Your task to perform on an android device: check data usage Image 0: 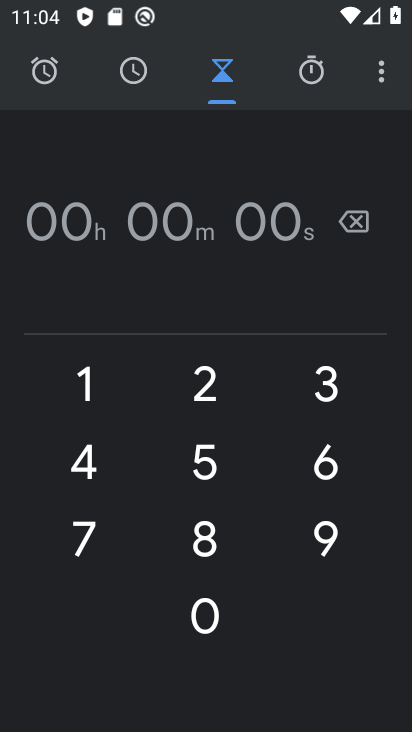
Step 0: press home button
Your task to perform on an android device: check data usage Image 1: 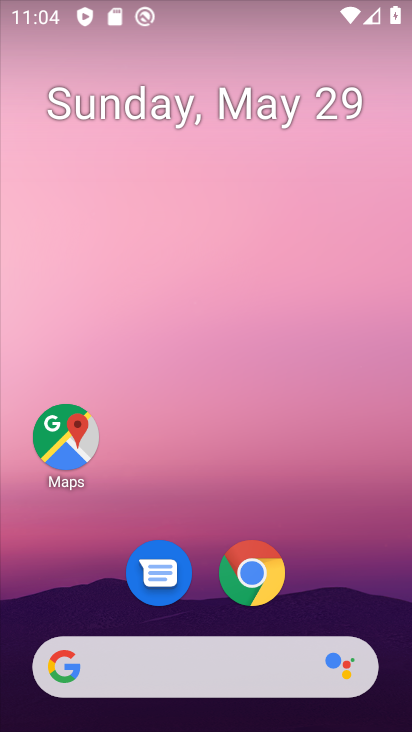
Step 1: drag from (305, 422) to (274, 239)
Your task to perform on an android device: check data usage Image 2: 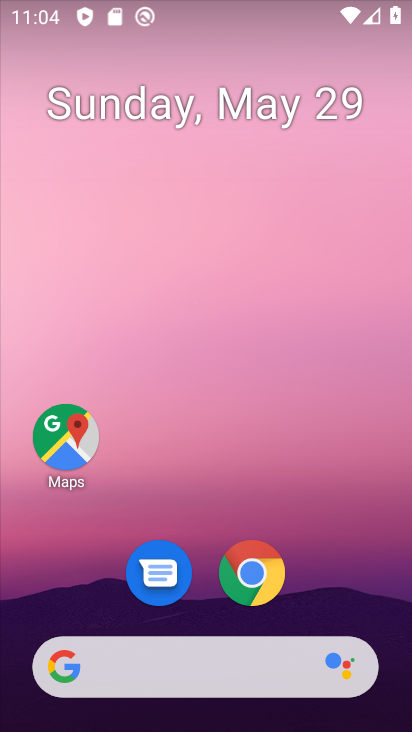
Step 2: drag from (342, 515) to (297, 86)
Your task to perform on an android device: check data usage Image 3: 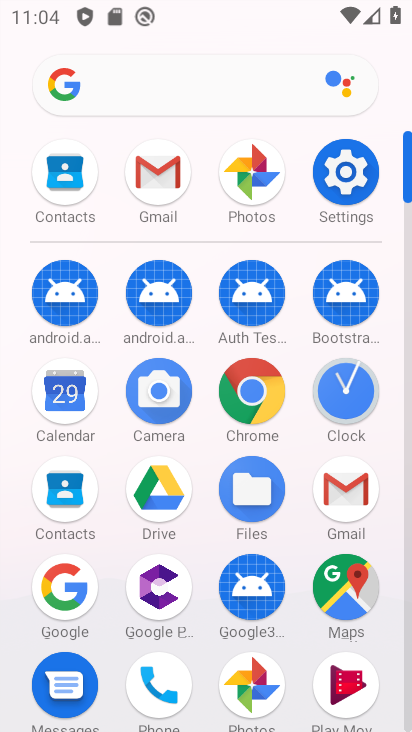
Step 3: click (342, 170)
Your task to perform on an android device: check data usage Image 4: 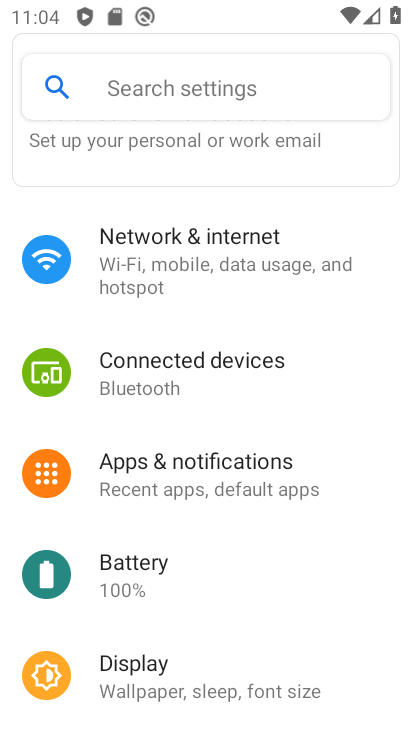
Step 4: drag from (355, 678) to (288, 640)
Your task to perform on an android device: check data usage Image 5: 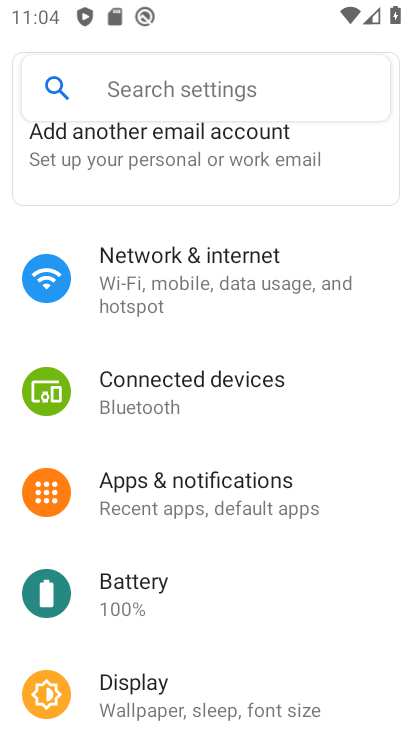
Step 5: click (246, 282)
Your task to perform on an android device: check data usage Image 6: 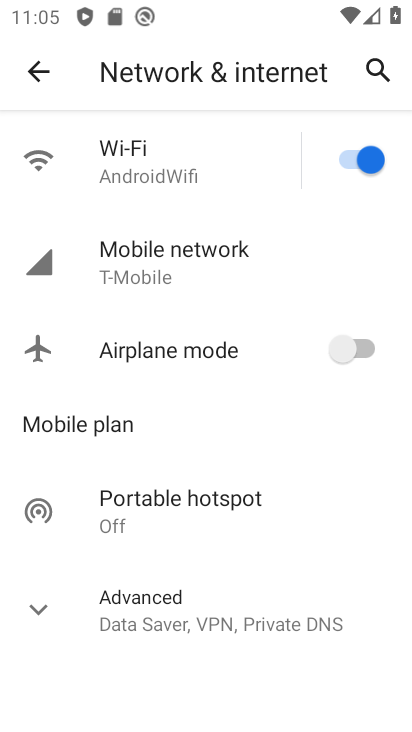
Step 6: click (209, 273)
Your task to perform on an android device: check data usage Image 7: 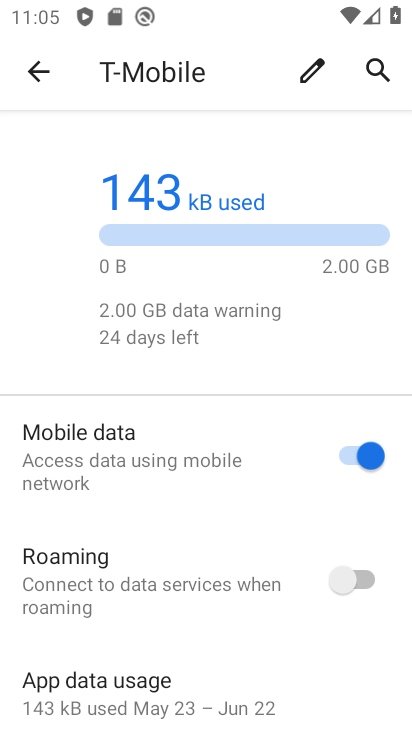
Step 7: task complete